Your task to perform on an android device: Go to Yahoo.com Image 0: 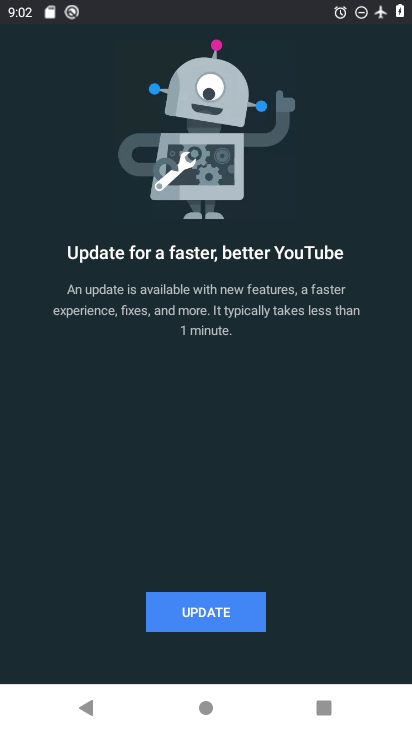
Step 0: press home button
Your task to perform on an android device: Go to Yahoo.com Image 1: 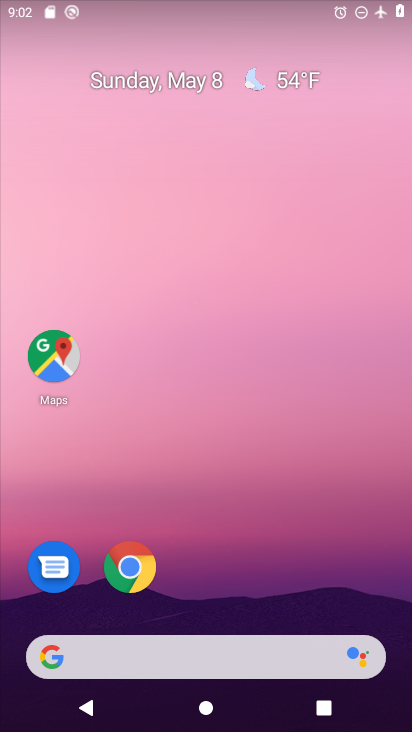
Step 1: click (124, 570)
Your task to perform on an android device: Go to Yahoo.com Image 2: 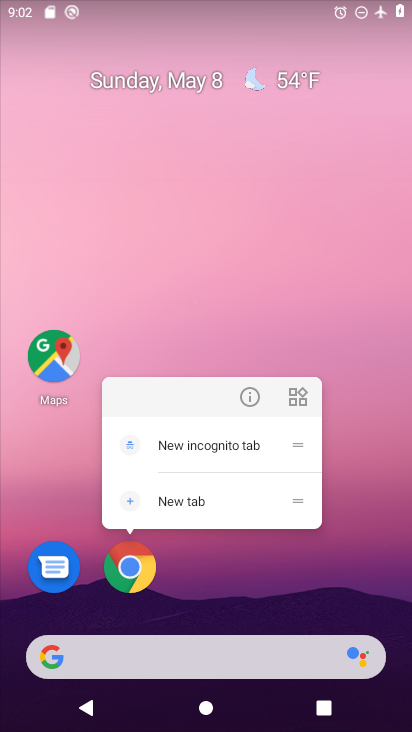
Step 2: click (124, 570)
Your task to perform on an android device: Go to Yahoo.com Image 3: 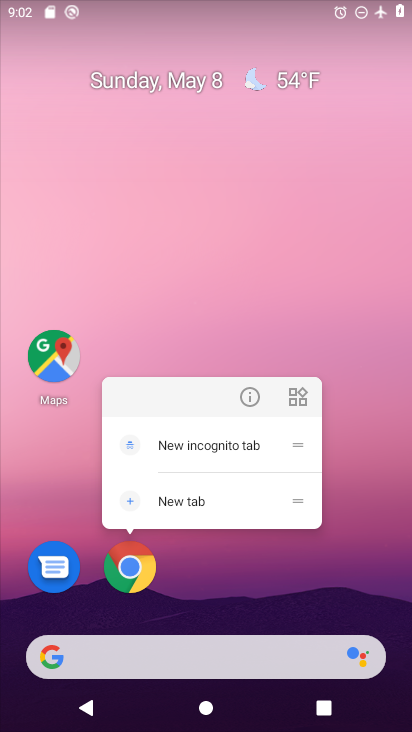
Step 3: click (124, 570)
Your task to perform on an android device: Go to Yahoo.com Image 4: 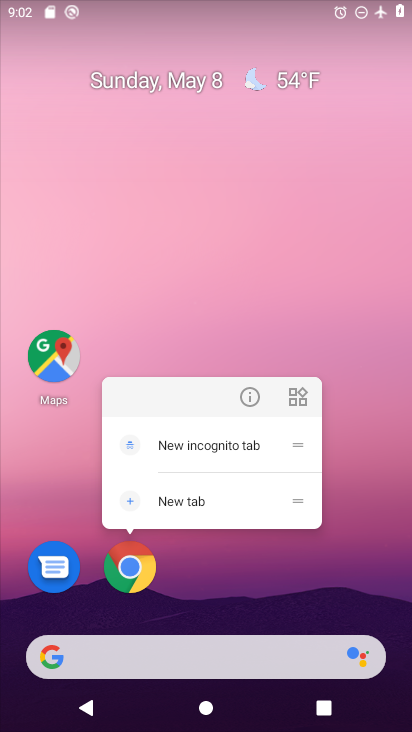
Step 4: click (124, 570)
Your task to perform on an android device: Go to Yahoo.com Image 5: 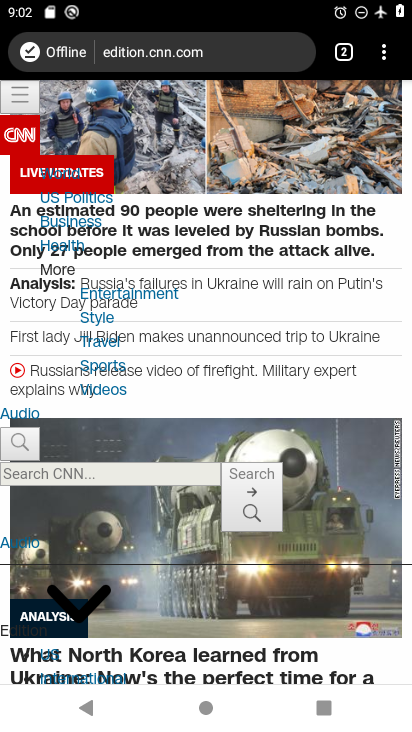
Step 5: click (238, 47)
Your task to perform on an android device: Go to Yahoo.com Image 6: 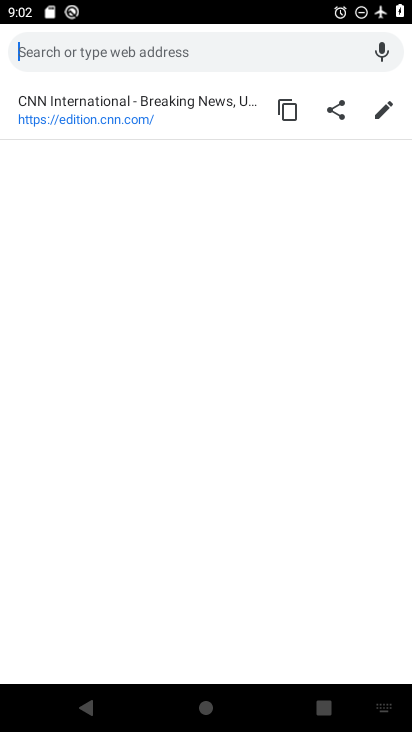
Step 6: type "yahoo.com"
Your task to perform on an android device: Go to Yahoo.com Image 7: 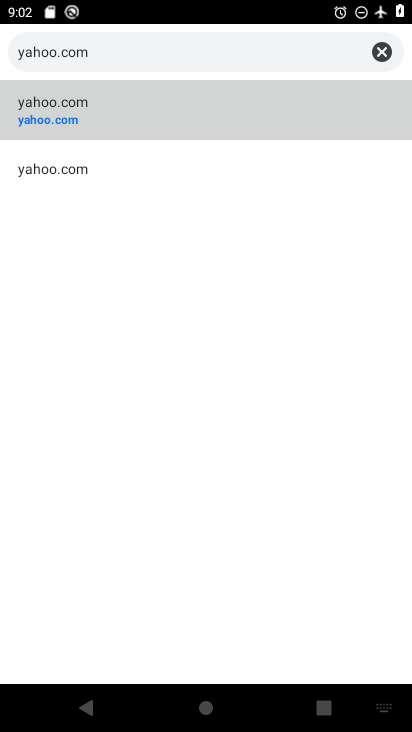
Step 7: click (22, 118)
Your task to perform on an android device: Go to Yahoo.com Image 8: 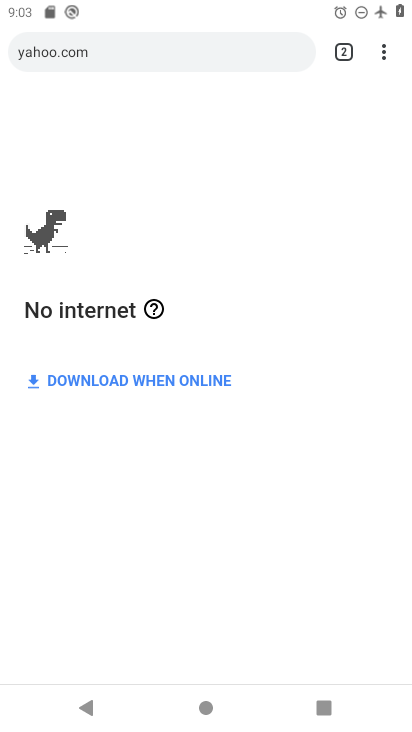
Step 8: task complete